Your task to perform on an android device: Open sound settings Image 0: 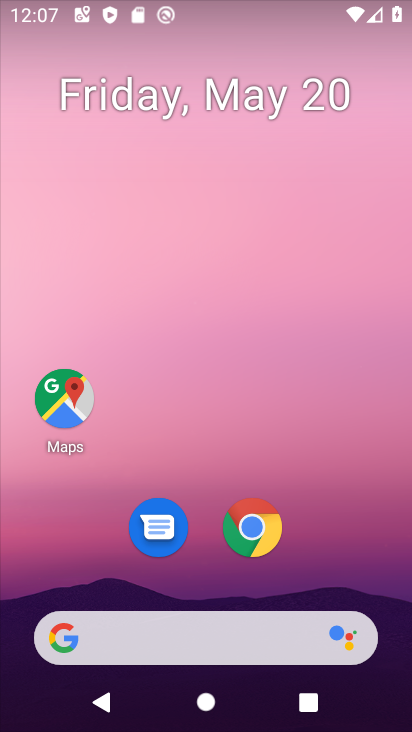
Step 0: press home button
Your task to perform on an android device: Open sound settings Image 1: 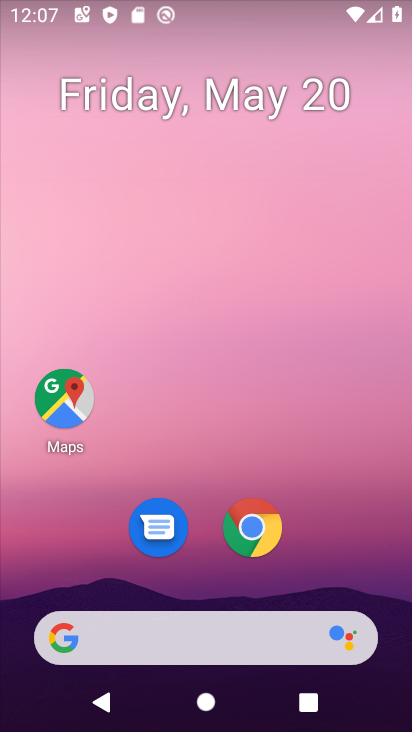
Step 1: click (410, 582)
Your task to perform on an android device: Open sound settings Image 2: 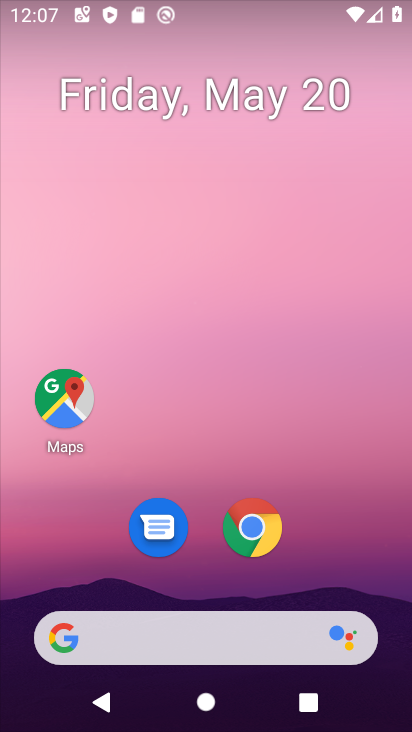
Step 2: drag from (368, 571) to (358, 7)
Your task to perform on an android device: Open sound settings Image 3: 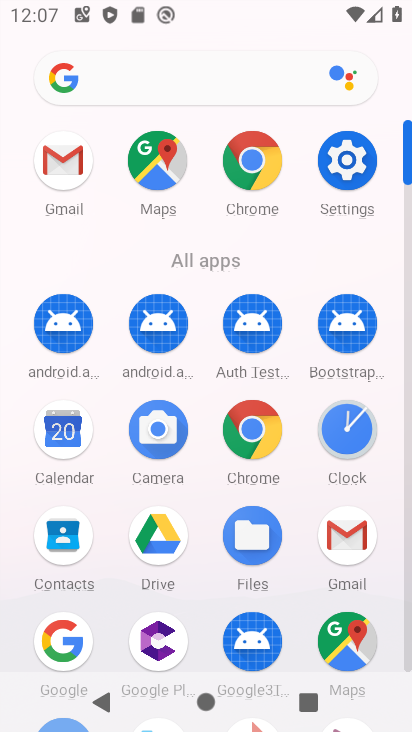
Step 3: click (342, 180)
Your task to perform on an android device: Open sound settings Image 4: 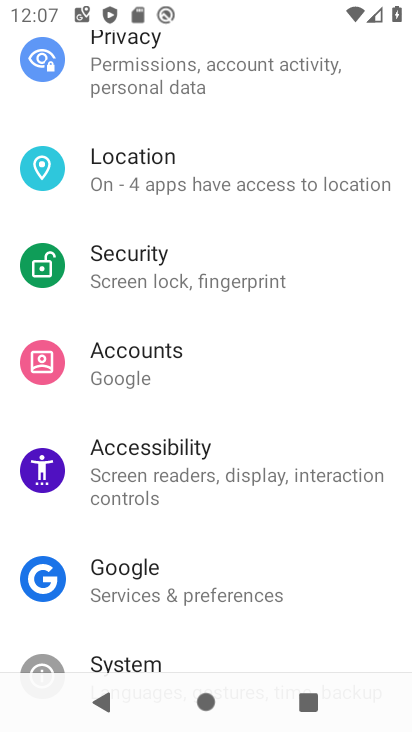
Step 4: drag from (318, 164) to (303, 633)
Your task to perform on an android device: Open sound settings Image 5: 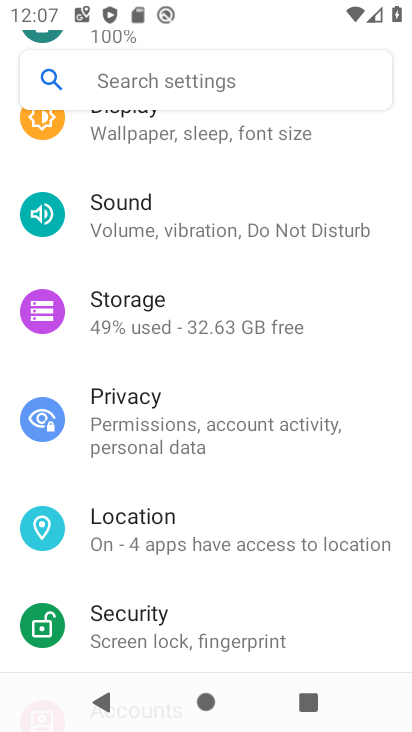
Step 5: drag from (309, 220) to (302, 473)
Your task to perform on an android device: Open sound settings Image 6: 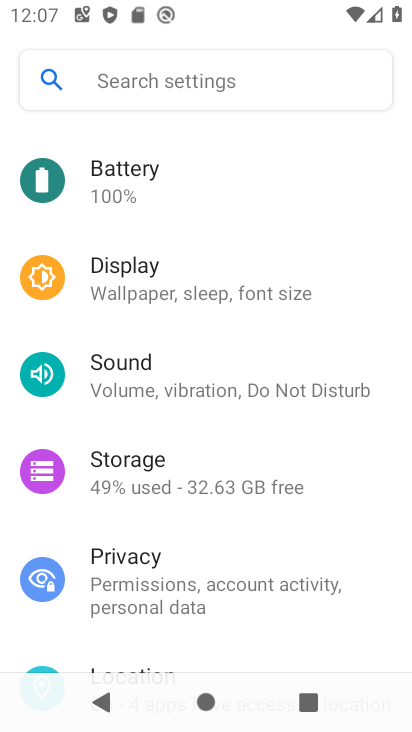
Step 6: click (174, 401)
Your task to perform on an android device: Open sound settings Image 7: 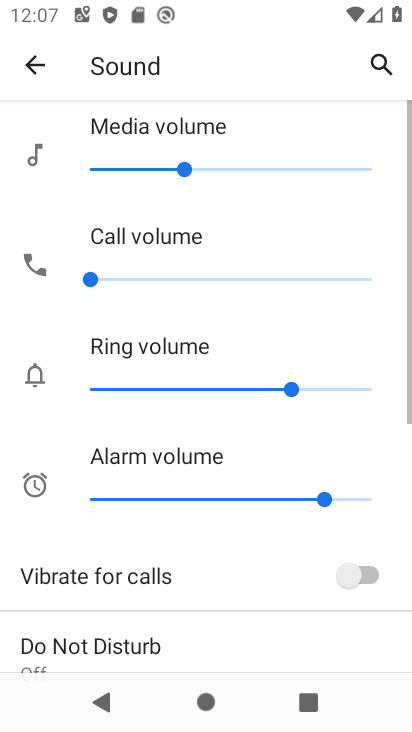
Step 7: task complete